Your task to perform on an android device: What's the weather? Image 0: 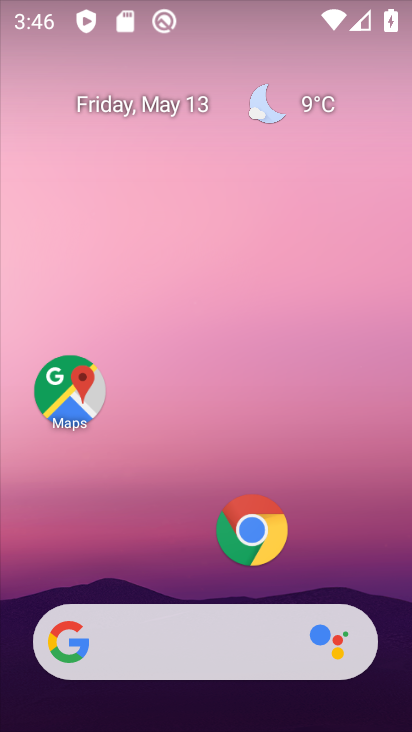
Step 0: click (315, 101)
Your task to perform on an android device: What's the weather? Image 1: 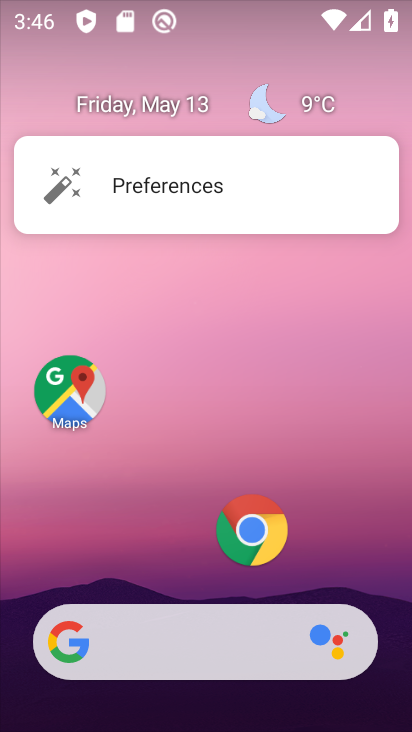
Step 1: click (328, 103)
Your task to perform on an android device: What's the weather? Image 2: 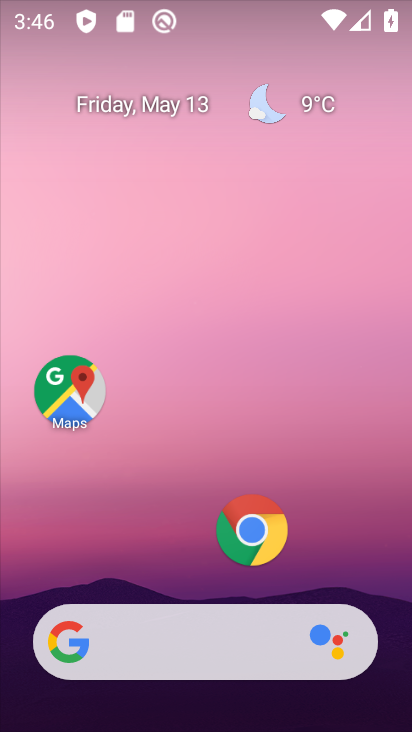
Step 2: click (313, 98)
Your task to perform on an android device: What's the weather? Image 3: 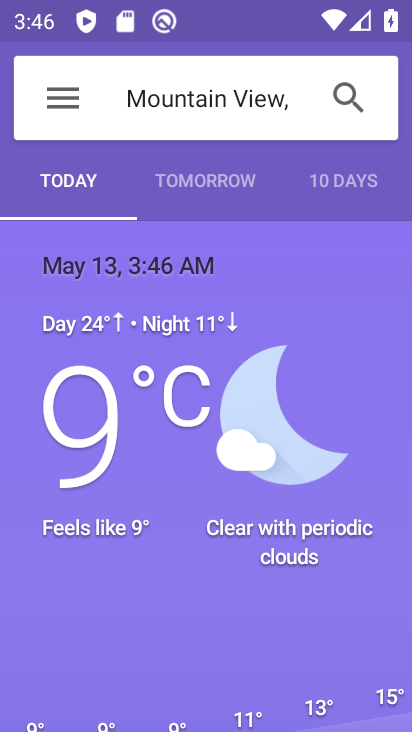
Step 3: task complete